Your task to perform on an android device: Go to accessibility settings Image 0: 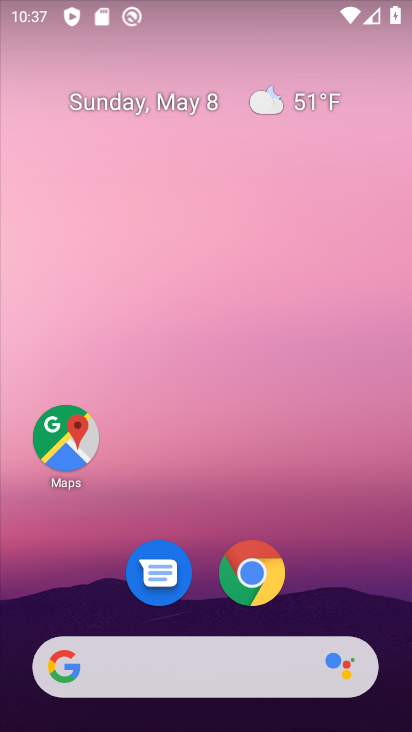
Step 0: drag from (294, 181) to (298, 134)
Your task to perform on an android device: Go to accessibility settings Image 1: 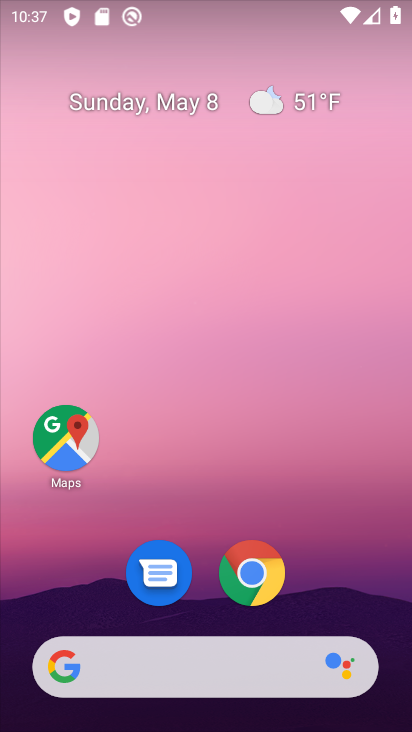
Step 1: drag from (194, 644) to (160, 139)
Your task to perform on an android device: Go to accessibility settings Image 2: 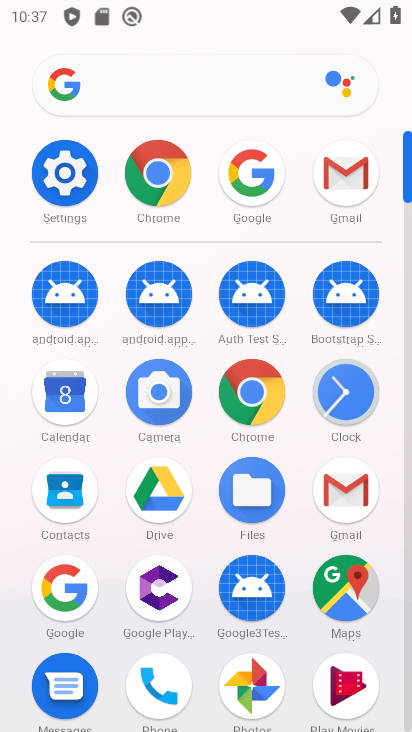
Step 2: click (72, 178)
Your task to perform on an android device: Go to accessibility settings Image 3: 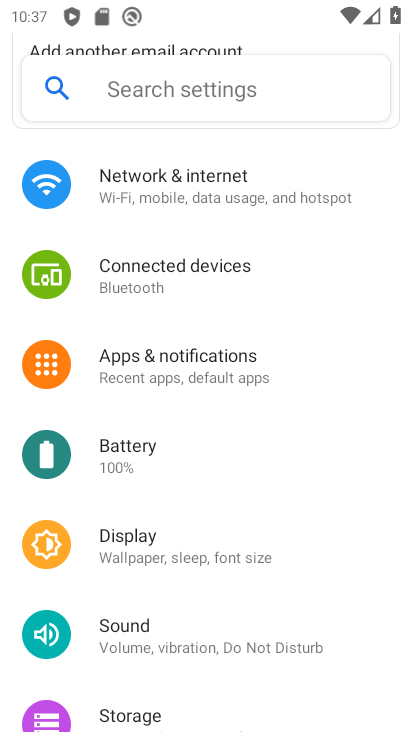
Step 3: drag from (197, 725) to (196, 318)
Your task to perform on an android device: Go to accessibility settings Image 4: 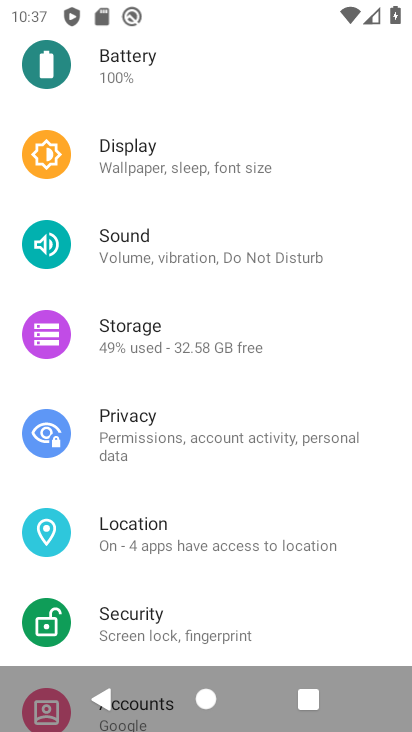
Step 4: drag from (199, 630) to (274, 287)
Your task to perform on an android device: Go to accessibility settings Image 5: 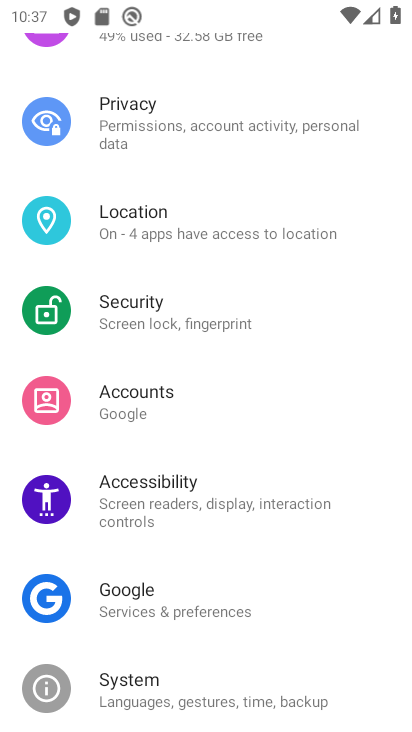
Step 5: click (144, 483)
Your task to perform on an android device: Go to accessibility settings Image 6: 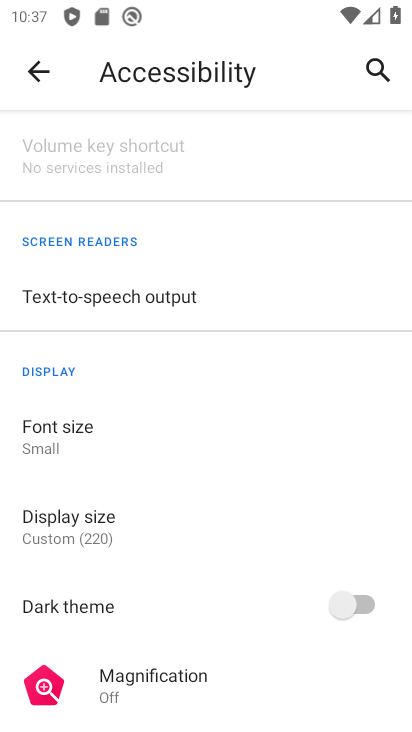
Step 6: task complete